Your task to perform on an android device: Search for pizza restaurants on Maps Image 0: 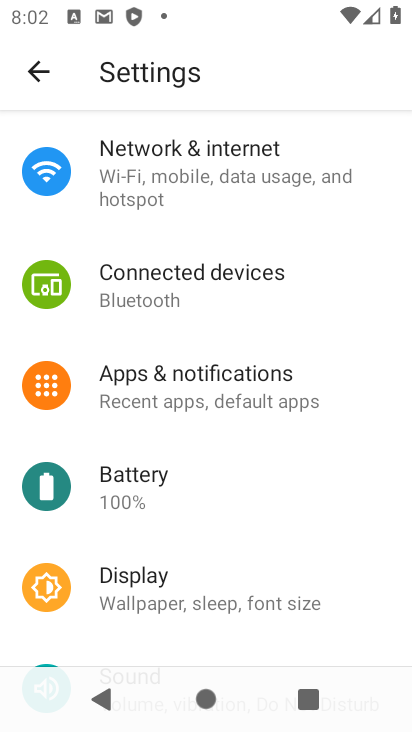
Step 0: press home button
Your task to perform on an android device: Search for pizza restaurants on Maps Image 1: 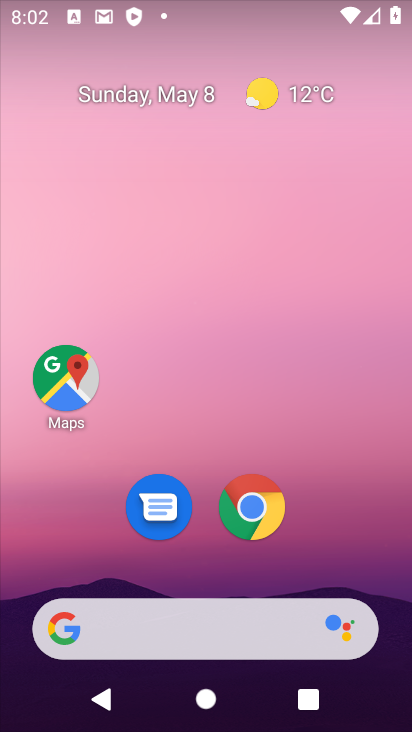
Step 1: click (61, 377)
Your task to perform on an android device: Search for pizza restaurants on Maps Image 2: 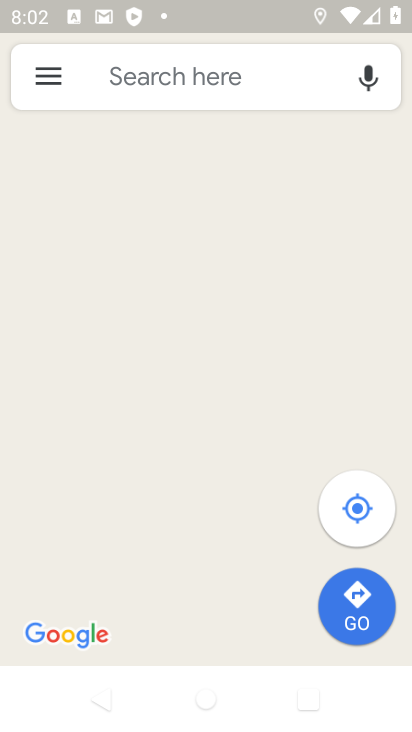
Step 2: click (222, 71)
Your task to perform on an android device: Search for pizza restaurants on Maps Image 3: 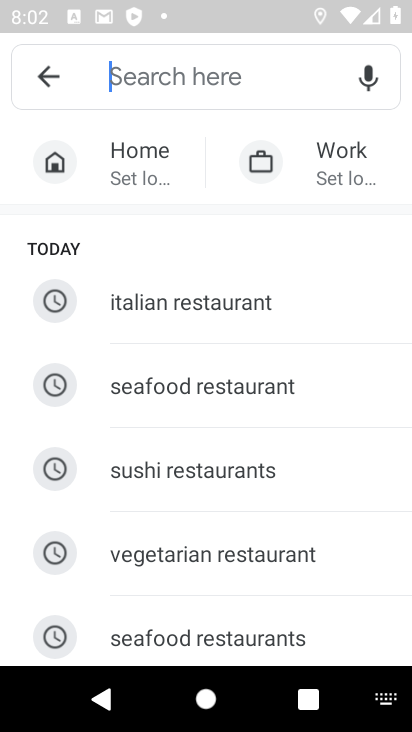
Step 3: drag from (314, 590) to (294, 10)
Your task to perform on an android device: Search for pizza restaurants on Maps Image 4: 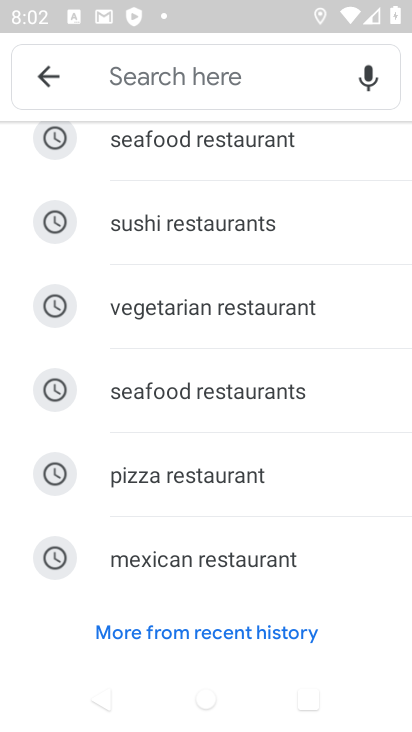
Step 4: click (255, 475)
Your task to perform on an android device: Search for pizza restaurants on Maps Image 5: 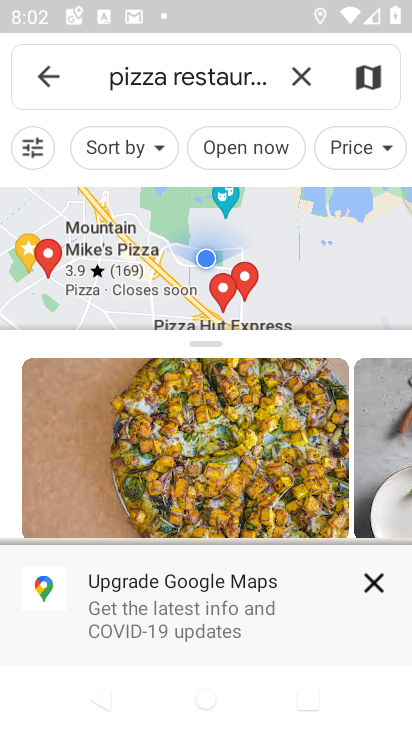
Step 5: task complete